Your task to perform on an android device: Open the calendar app, open the side menu, and click the "Day" option Image 0: 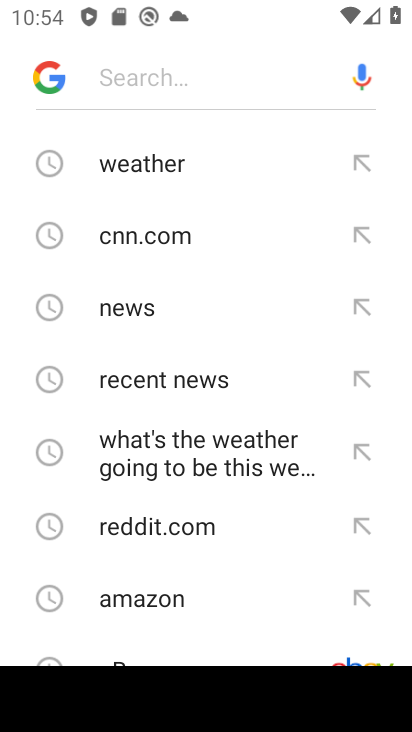
Step 0: press home button
Your task to perform on an android device: Open the calendar app, open the side menu, and click the "Day" option Image 1: 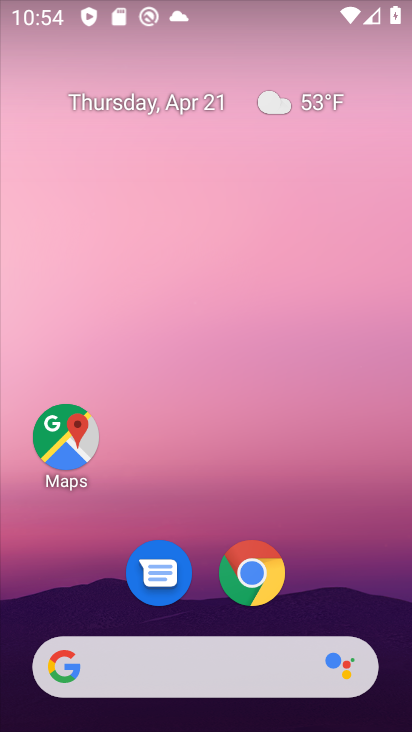
Step 1: drag from (345, 519) to (406, 85)
Your task to perform on an android device: Open the calendar app, open the side menu, and click the "Day" option Image 2: 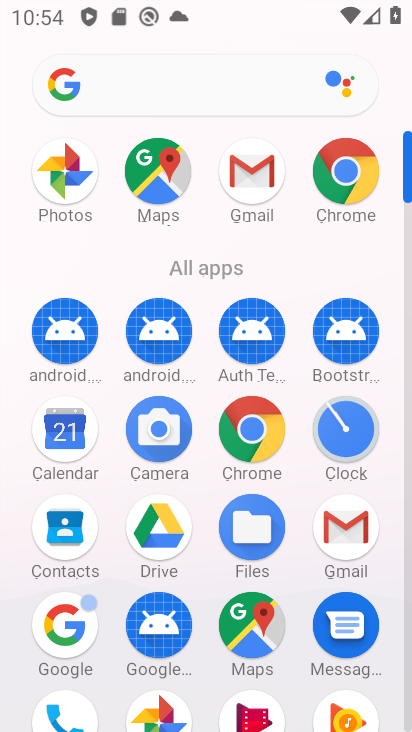
Step 2: click (61, 429)
Your task to perform on an android device: Open the calendar app, open the side menu, and click the "Day" option Image 3: 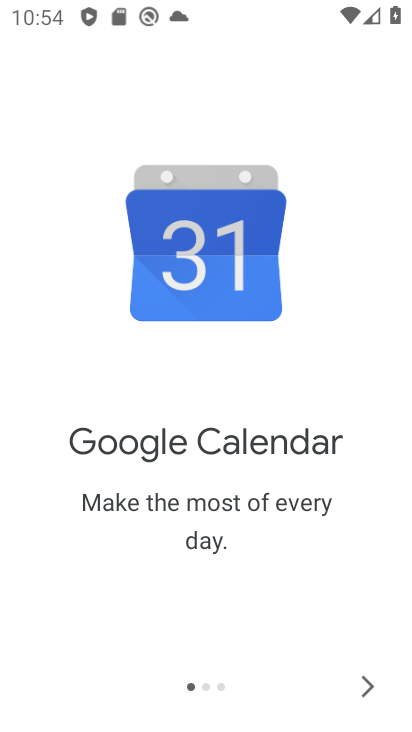
Step 3: click (371, 683)
Your task to perform on an android device: Open the calendar app, open the side menu, and click the "Day" option Image 4: 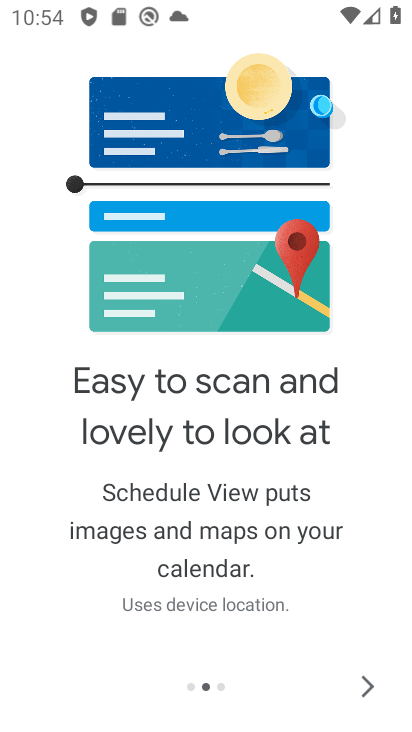
Step 4: click (371, 683)
Your task to perform on an android device: Open the calendar app, open the side menu, and click the "Day" option Image 5: 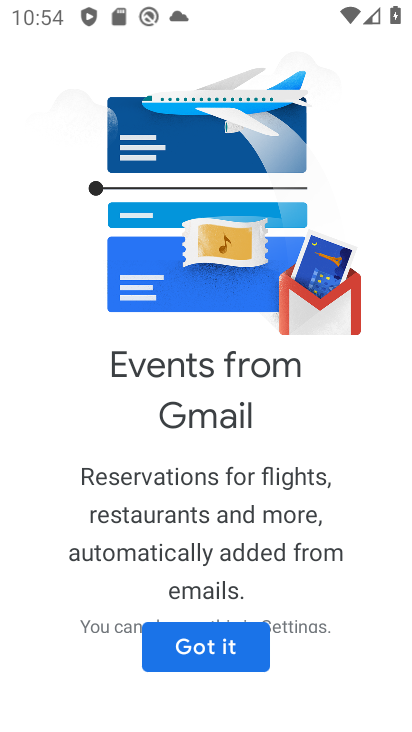
Step 5: click (229, 651)
Your task to perform on an android device: Open the calendar app, open the side menu, and click the "Day" option Image 6: 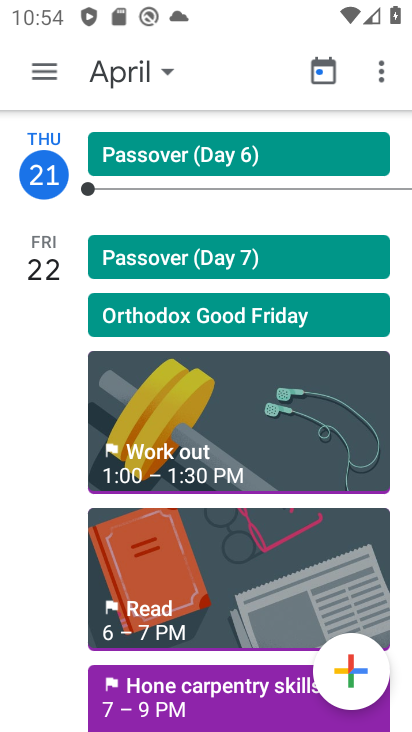
Step 6: click (35, 74)
Your task to perform on an android device: Open the calendar app, open the side menu, and click the "Day" option Image 7: 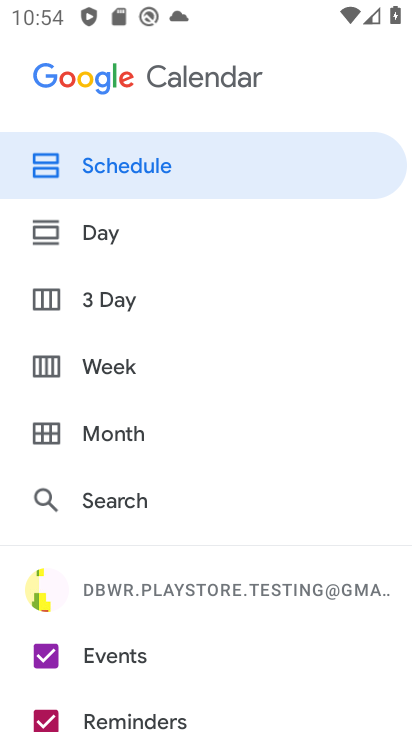
Step 7: click (94, 234)
Your task to perform on an android device: Open the calendar app, open the side menu, and click the "Day" option Image 8: 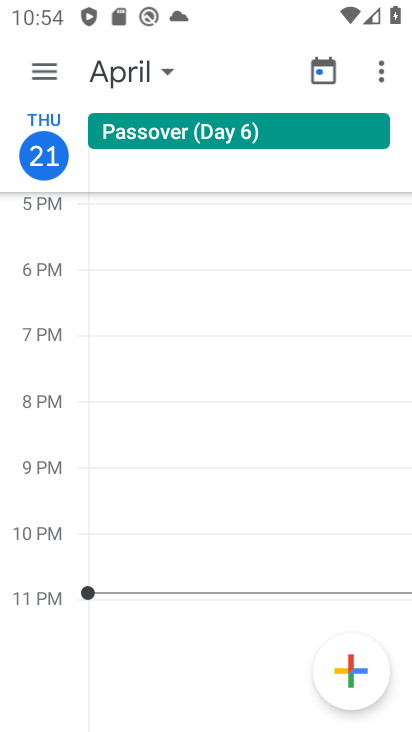
Step 8: task complete